Your task to perform on an android device: turn pop-ups on in chrome Image 0: 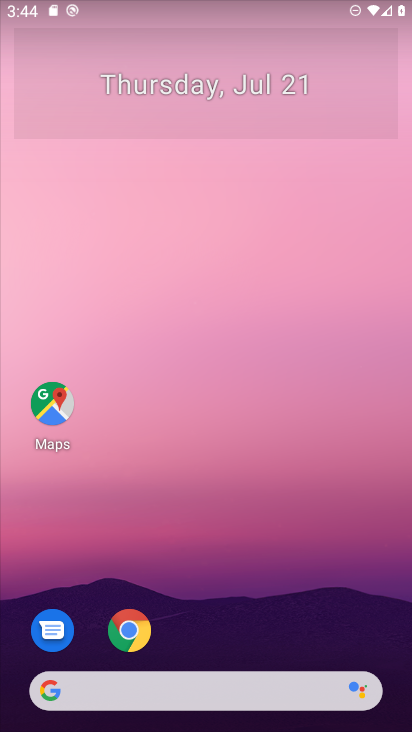
Step 0: click (145, 618)
Your task to perform on an android device: turn pop-ups on in chrome Image 1: 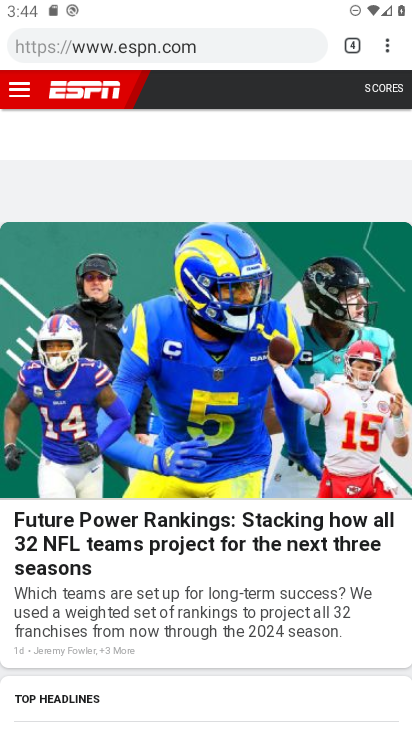
Step 1: drag from (388, 46) to (233, 546)
Your task to perform on an android device: turn pop-ups on in chrome Image 2: 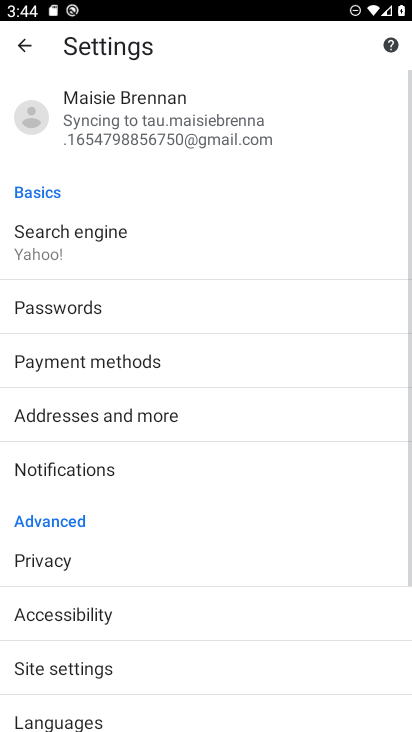
Step 2: click (102, 670)
Your task to perform on an android device: turn pop-ups on in chrome Image 3: 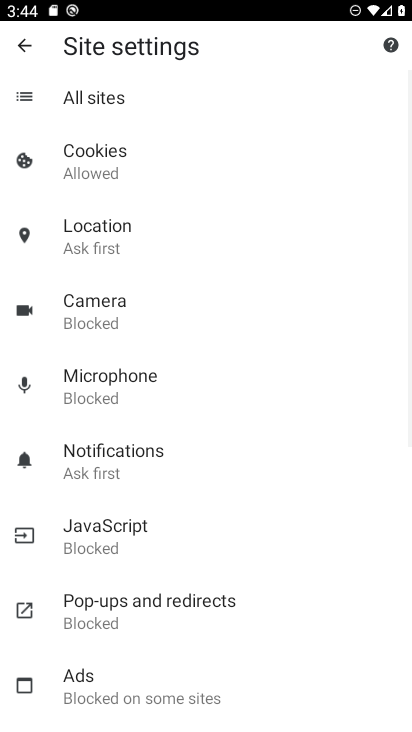
Step 3: click (122, 595)
Your task to perform on an android device: turn pop-ups on in chrome Image 4: 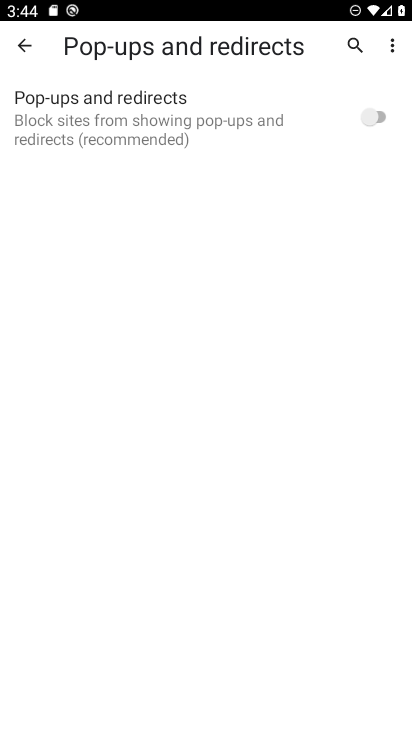
Step 4: click (366, 111)
Your task to perform on an android device: turn pop-ups on in chrome Image 5: 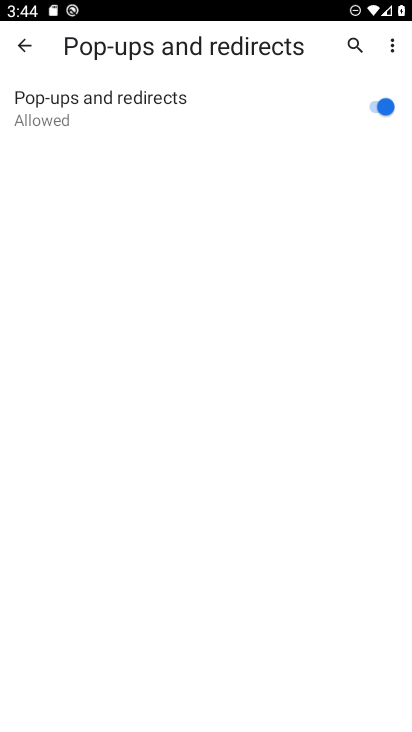
Step 5: task complete